Your task to perform on an android device: Open internet settings Image 0: 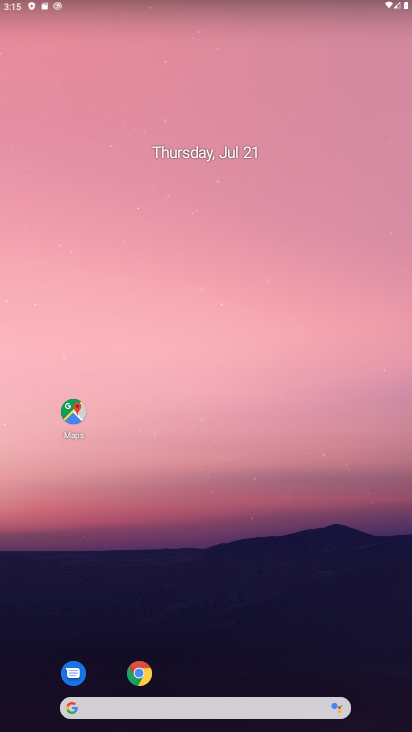
Step 0: click (239, 132)
Your task to perform on an android device: Open internet settings Image 1: 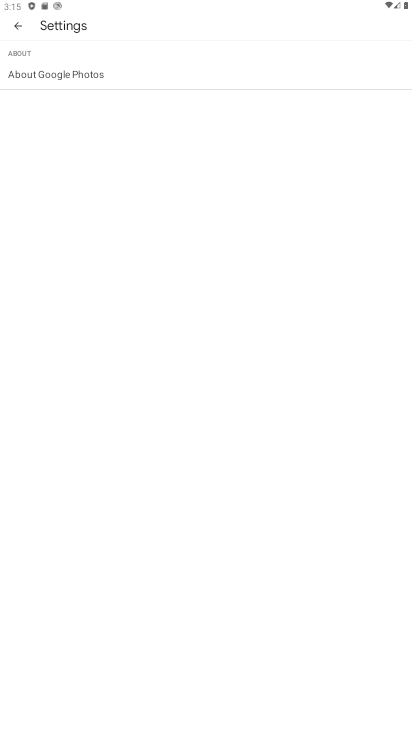
Step 1: click (19, 26)
Your task to perform on an android device: Open internet settings Image 2: 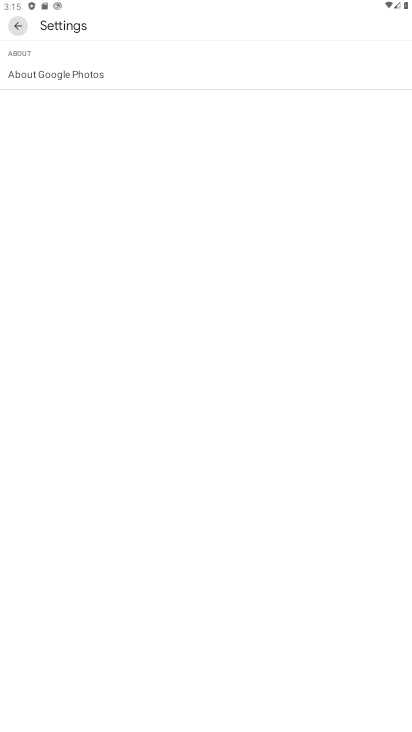
Step 2: click (19, 27)
Your task to perform on an android device: Open internet settings Image 3: 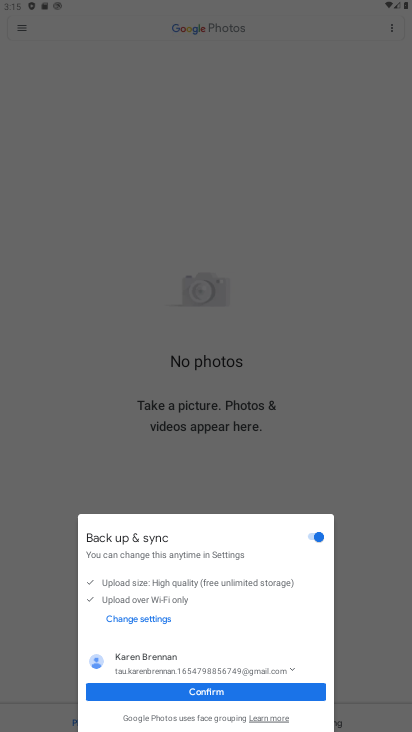
Step 3: click (205, 684)
Your task to perform on an android device: Open internet settings Image 4: 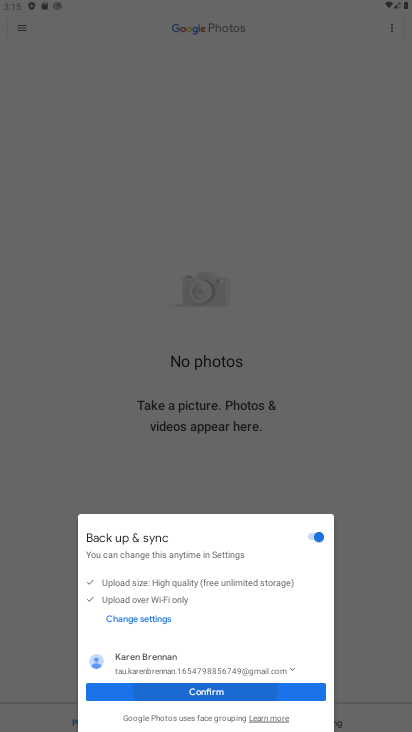
Step 4: click (205, 684)
Your task to perform on an android device: Open internet settings Image 5: 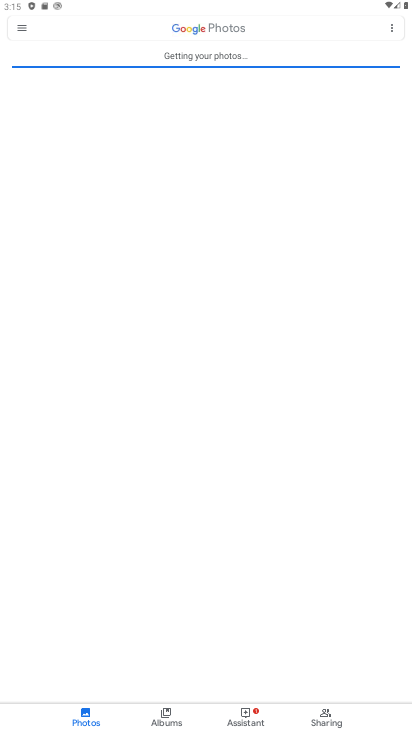
Step 5: click (205, 684)
Your task to perform on an android device: Open internet settings Image 6: 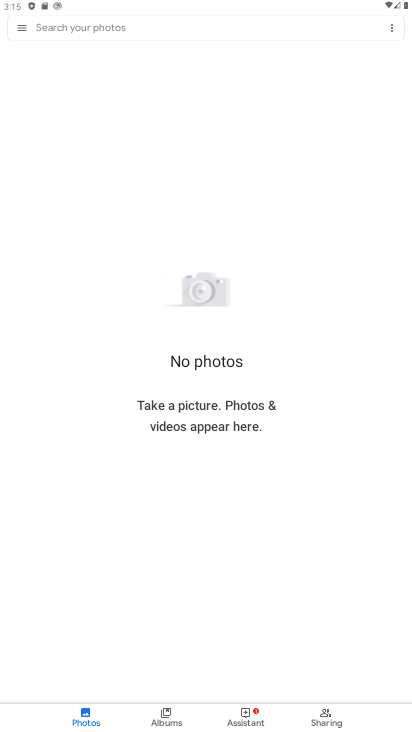
Step 6: press back button
Your task to perform on an android device: Open internet settings Image 7: 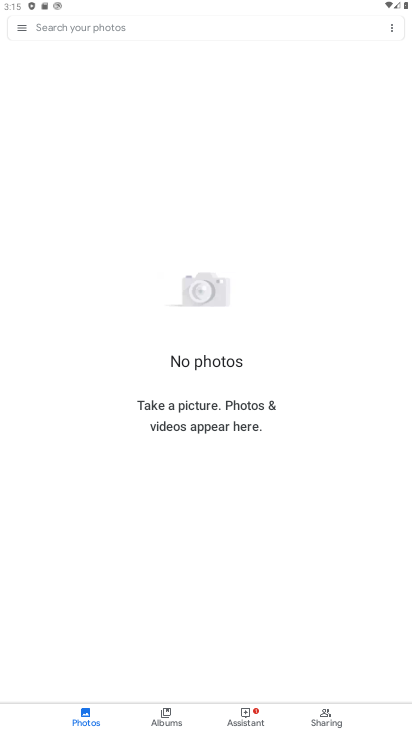
Step 7: press back button
Your task to perform on an android device: Open internet settings Image 8: 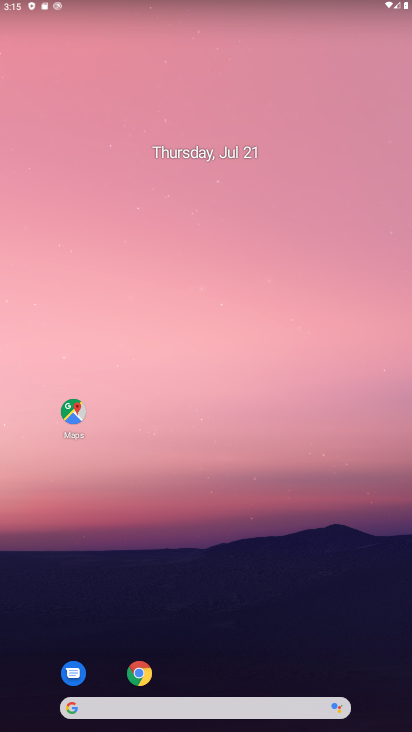
Step 8: drag from (166, 595) to (103, 91)
Your task to perform on an android device: Open internet settings Image 9: 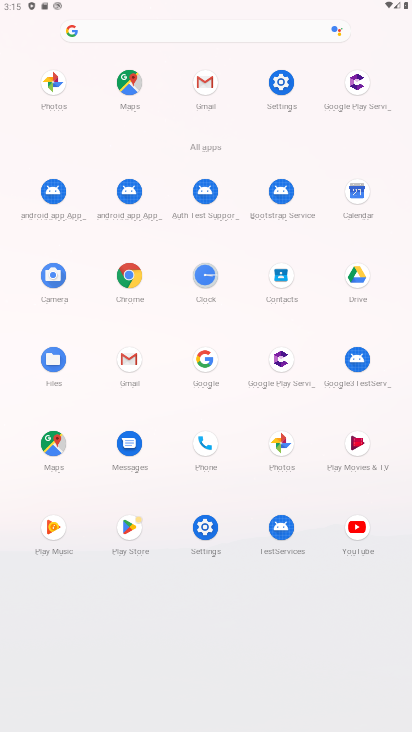
Step 9: click (268, 88)
Your task to perform on an android device: Open internet settings Image 10: 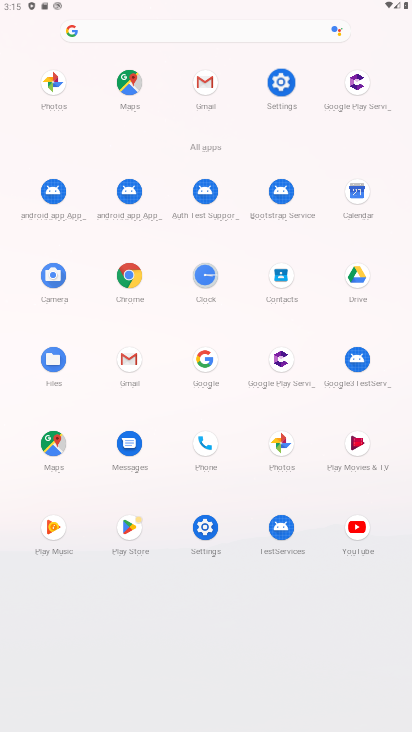
Step 10: click (268, 88)
Your task to perform on an android device: Open internet settings Image 11: 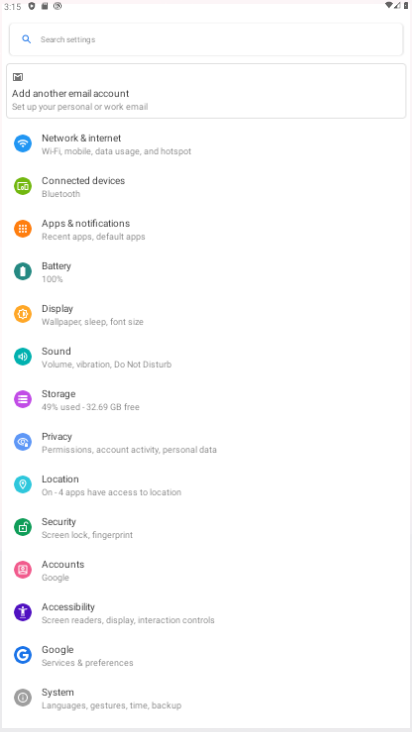
Step 11: click (277, 101)
Your task to perform on an android device: Open internet settings Image 12: 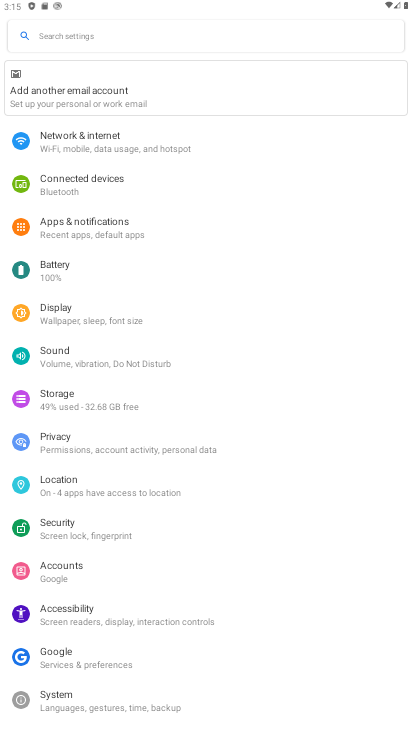
Step 12: click (86, 141)
Your task to perform on an android device: Open internet settings Image 13: 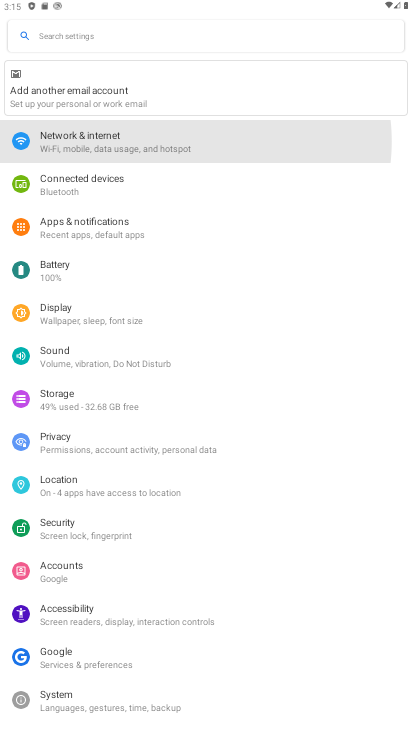
Step 13: click (89, 141)
Your task to perform on an android device: Open internet settings Image 14: 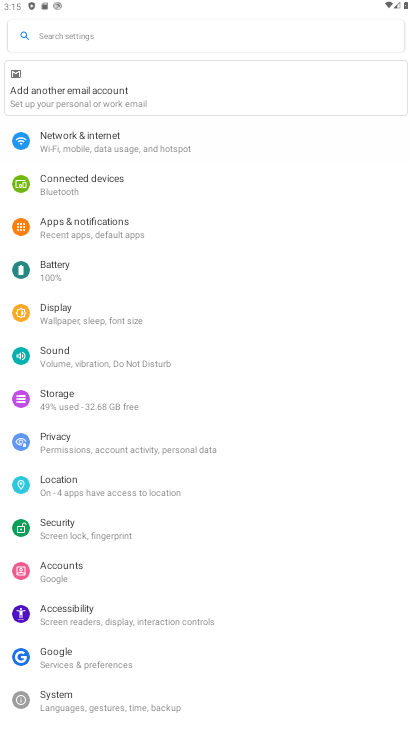
Step 14: click (92, 140)
Your task to perform on an android device: Open internet settings Image 15: 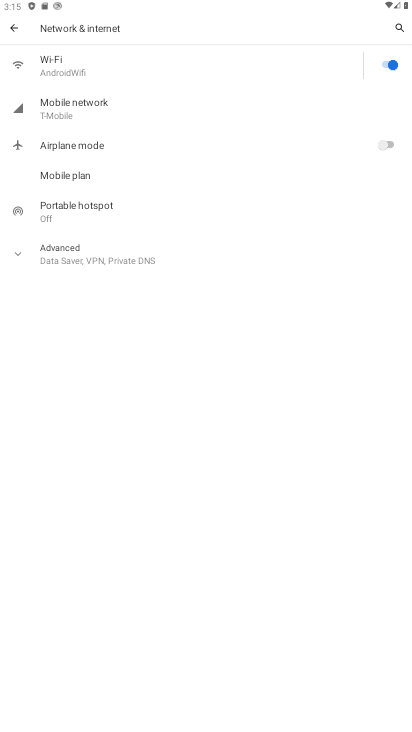
Step 15: task complete